Your task to perform on an android device: What's the weather going to be this weekend? Image 0: 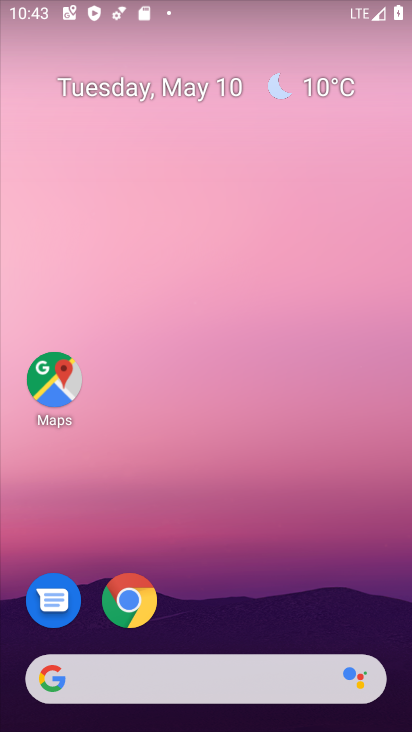
Step 0: drag from (263, 555) to (223, 45)
Your task to perform on an android device: What's the weather going to be this weekend? Image 1: 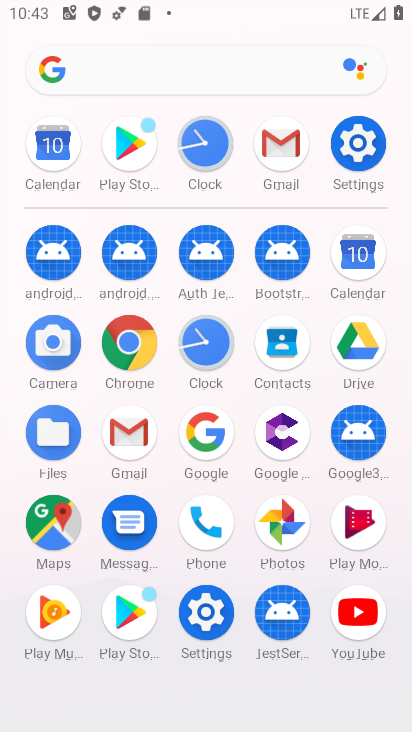
Step 1: press home button
Your task to perform on an android device: What's the weather going to be this weekend? Image 2: 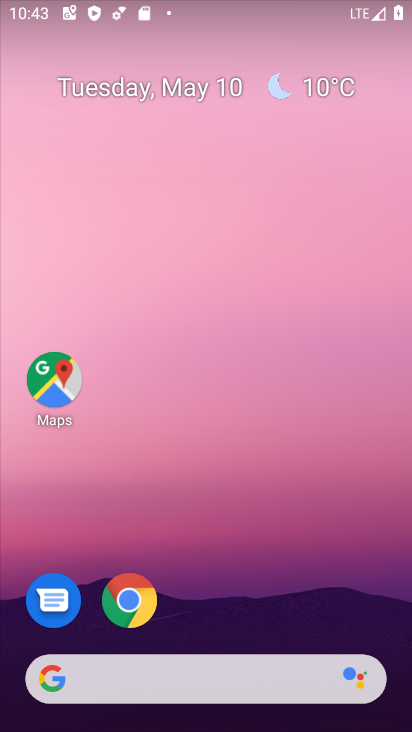
Step 2: click (292, 89)
Your task to perform on an android device: What's the weather going to be this weekend? Image 3: 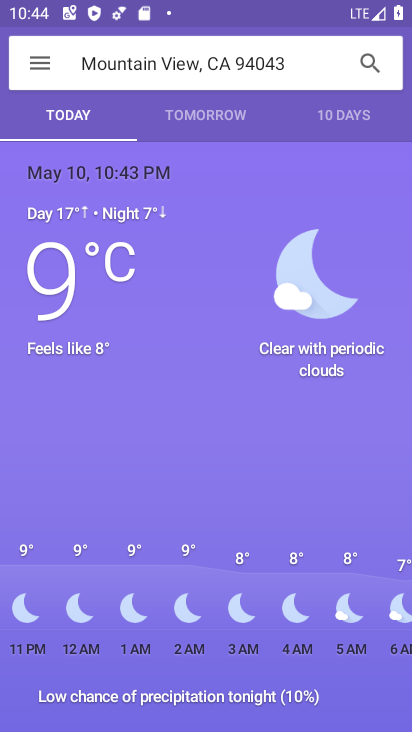
Step 3: click (346, 108)
Your task to perform on an android device: What's the weather going to be this weekend? Image 4: 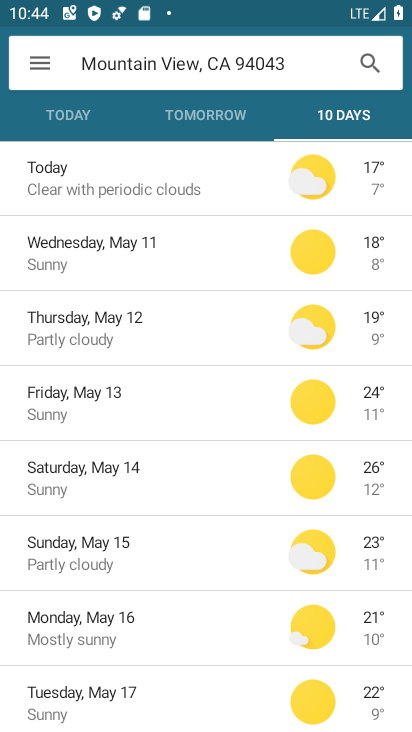
Step 4: task complete